Your task to perform on an android device: create a new album in the google photos Image 0: 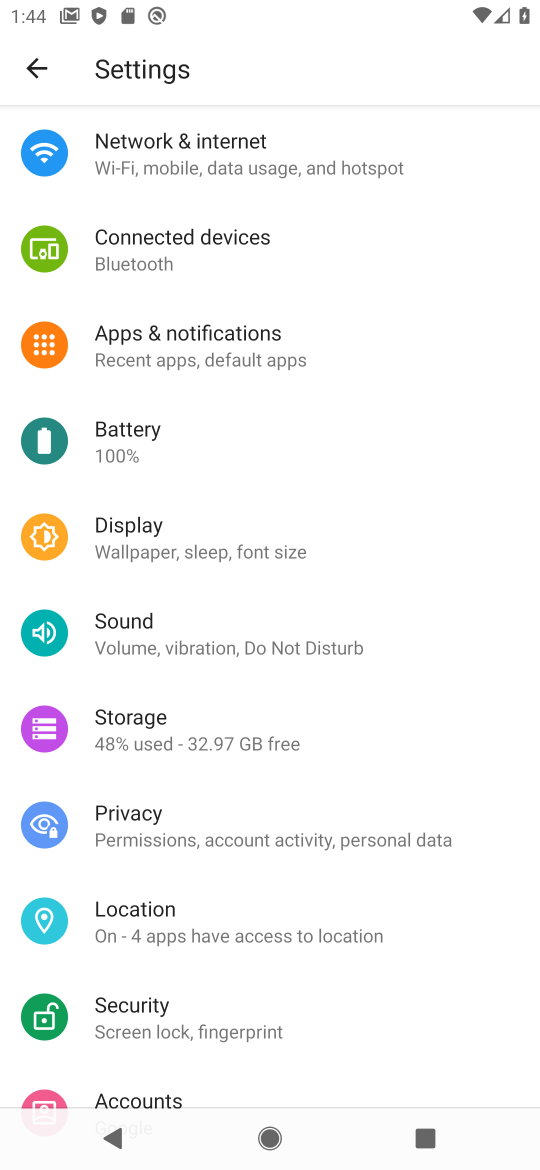
Step 0: press home button
Your task to perform on an android device: create a new album in the google photos Image 1: 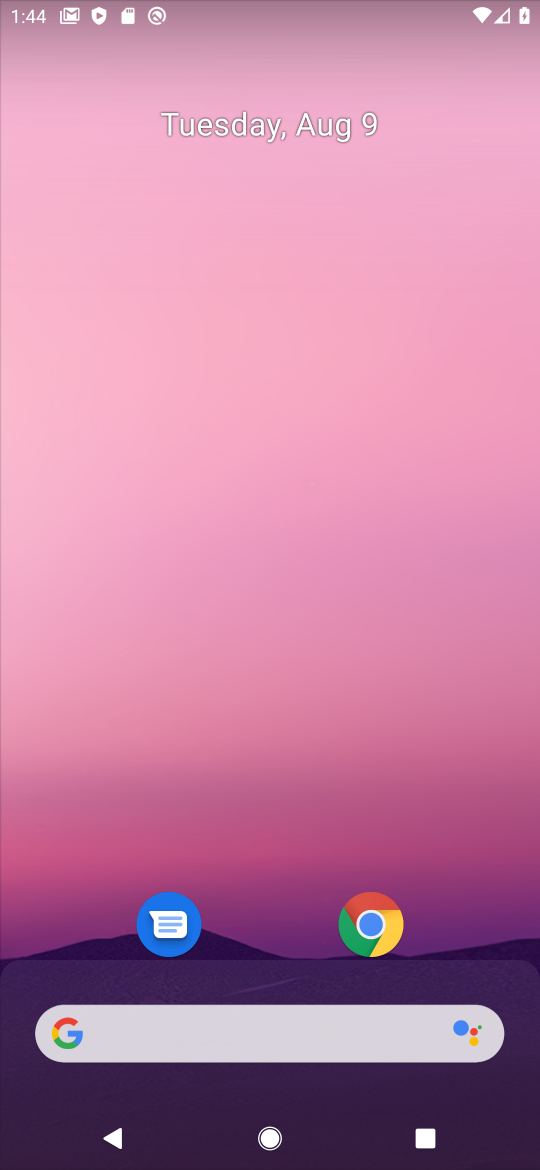
Step 1: drag from (482, 741) to (421, 31)
Your task to perform on an android device: create a new album in the google photos Image 2: 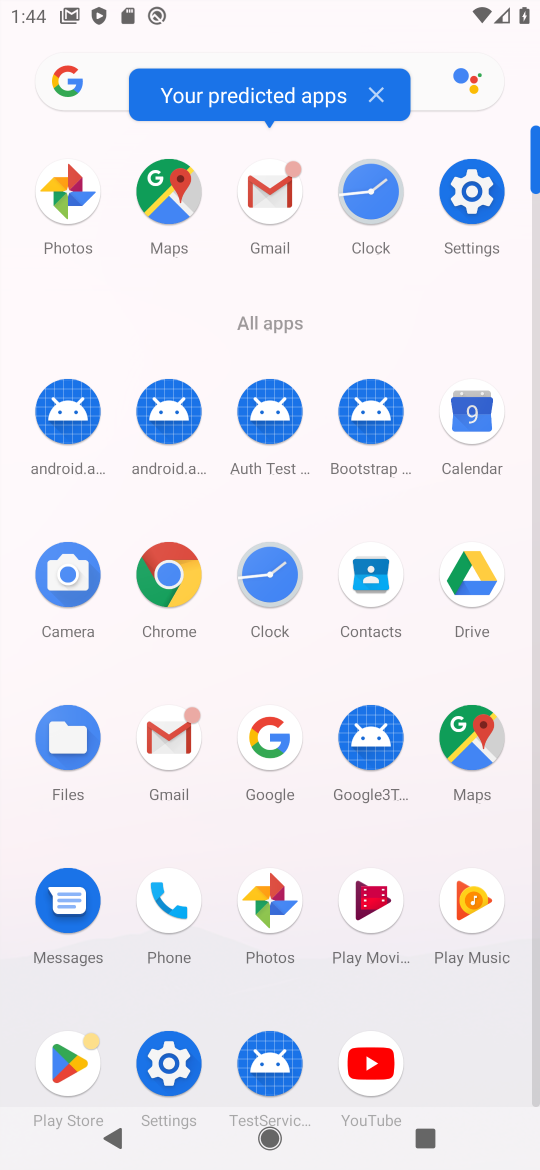
Step 2: click (282, 896)
Your task to perform on an android device: create a new album in the google photos Image 3: 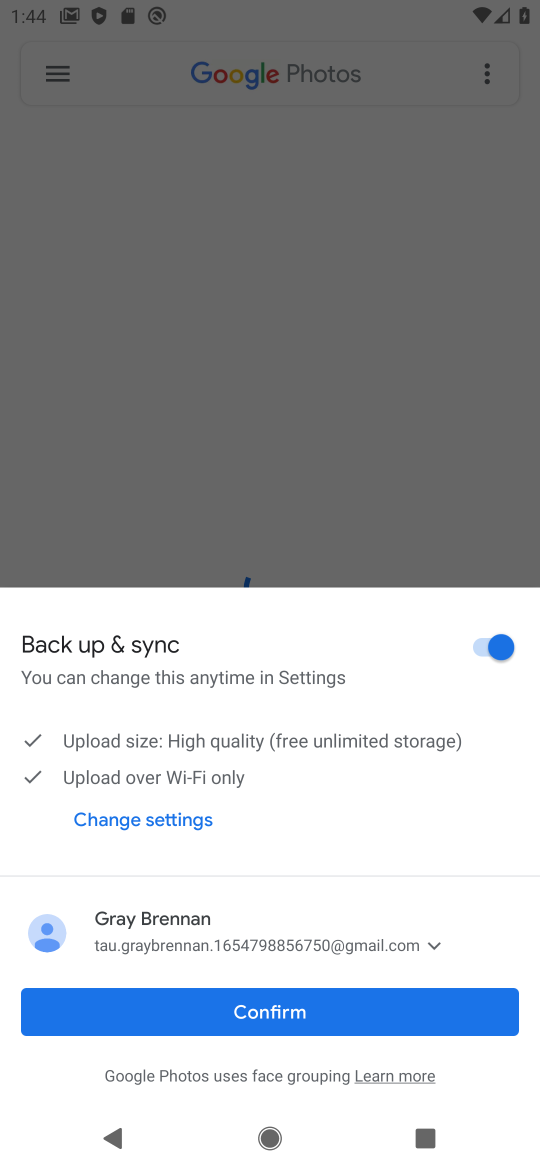
Step 3: click (277, 1012)
Your task to perform on an android device: create a new album in the google photos Image 4: 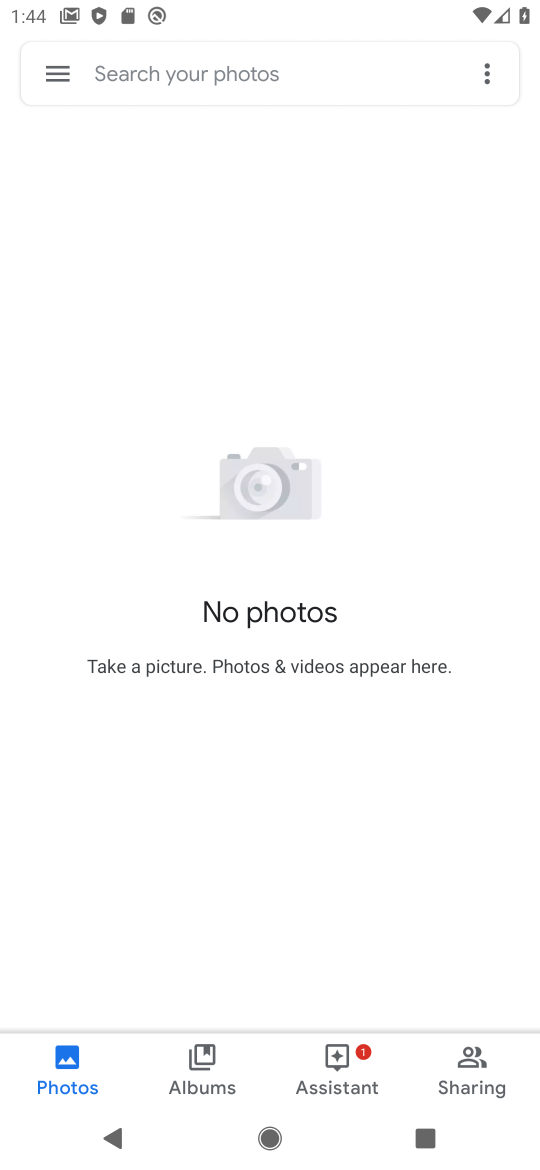
Step 4: click (475, 51)
Your task to perform on an android device: create a new album in the google photos Image 5: 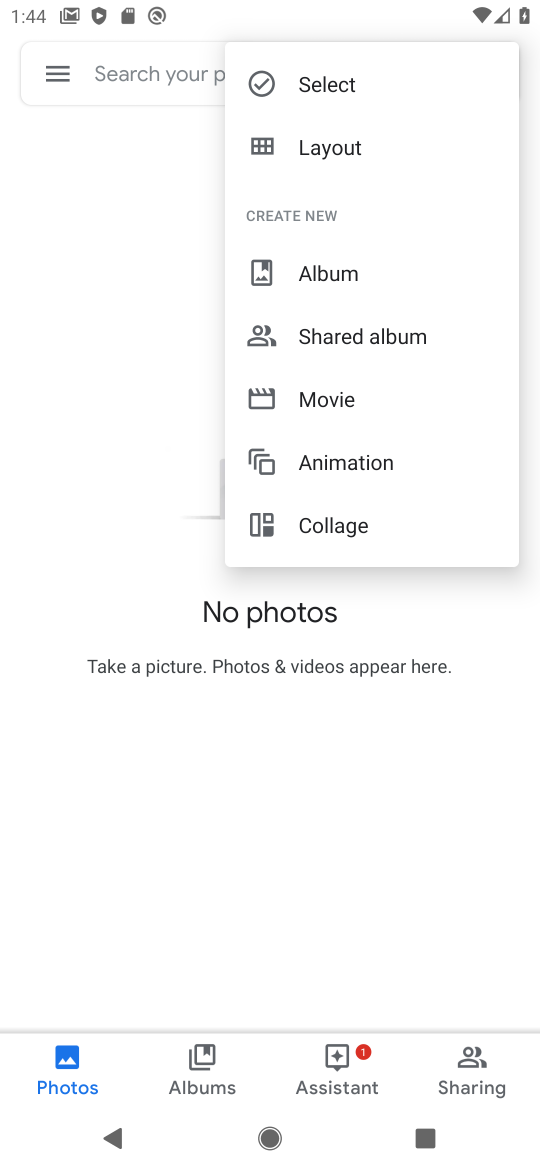
Step 5: click (343, 262)
Your task to perform on an android device: create a new album in the google photos Image 6: 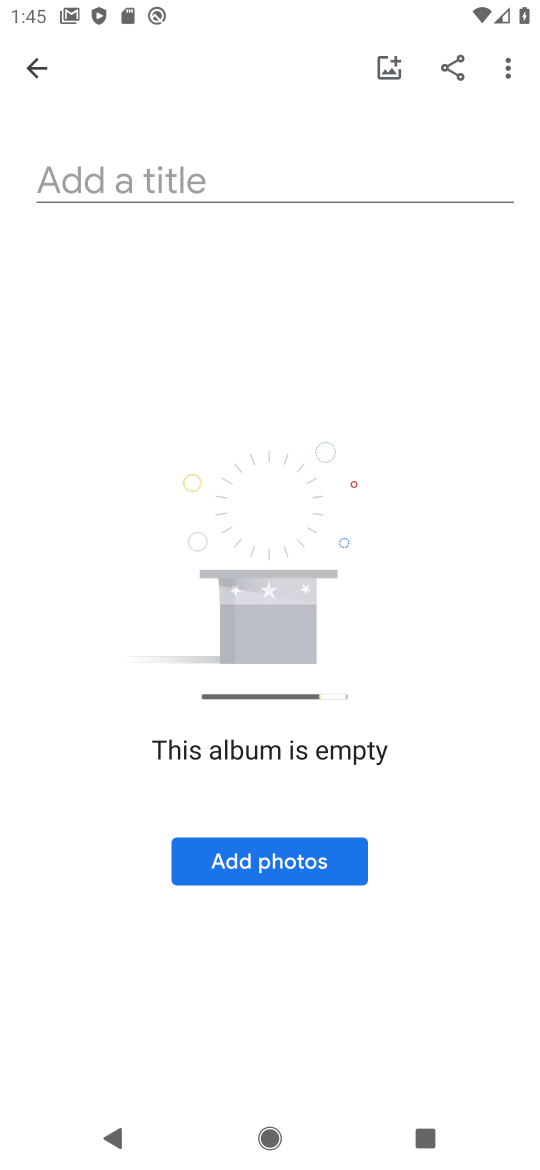
Step 6: click (243, 860)
Your task to perform on an android device: create a new album in the google photos Image 7: 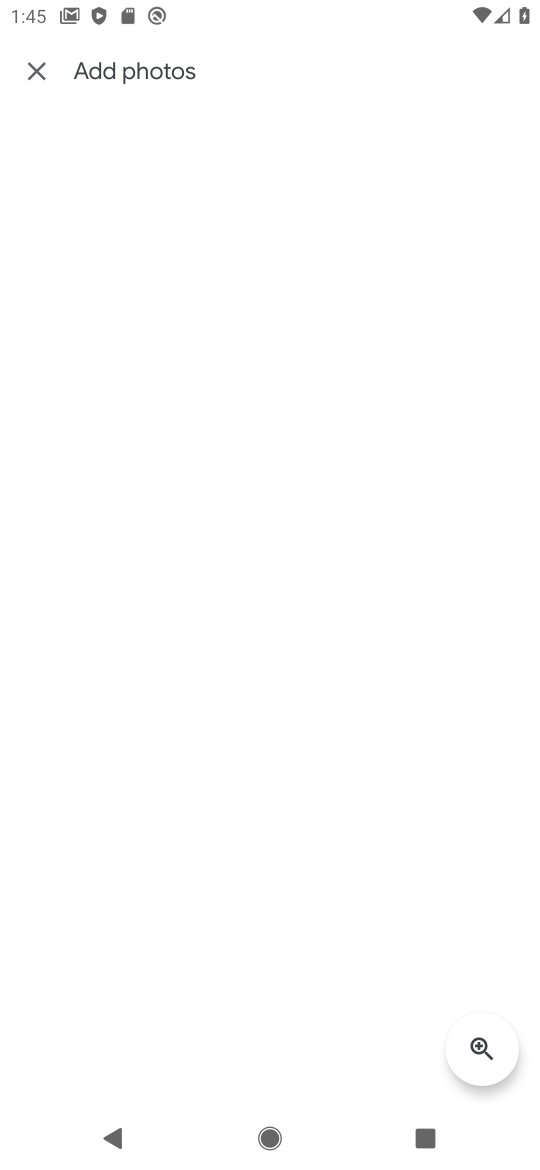
Step 7: task complete